Your task to perform on an android device: check google app version Image 0: 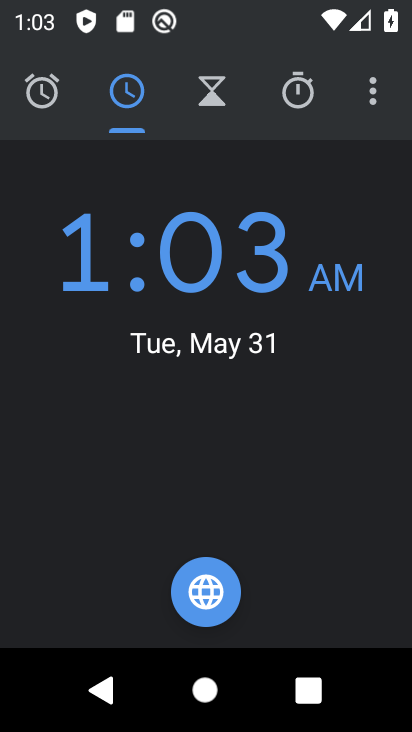
Step 0: press home button
Your task to perform on an android device: check google app version Image 1: 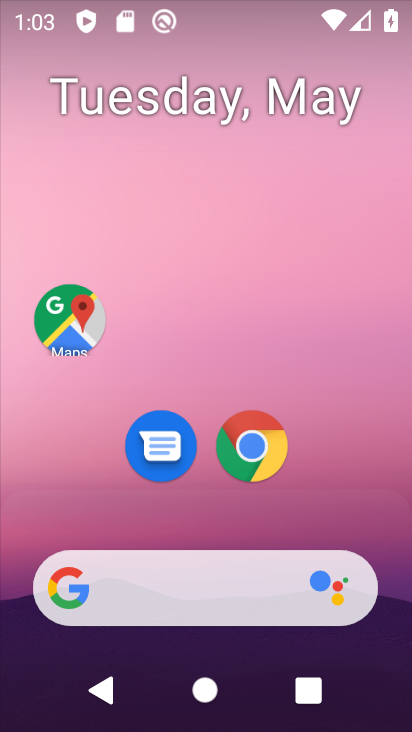
Step 1: drag from (214, 567) to (199, 5)
Your task to perform on an android device: check google app version Image 2: 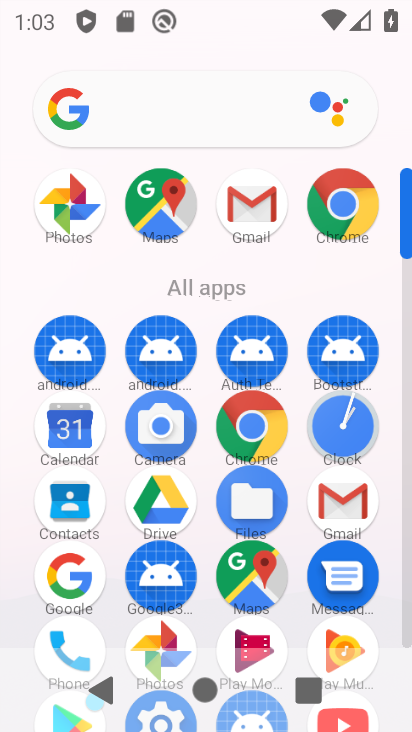
Step 2: drag from (115, 580) to (118, 162)
Your task to perform on an android device: check google app version Image 3: 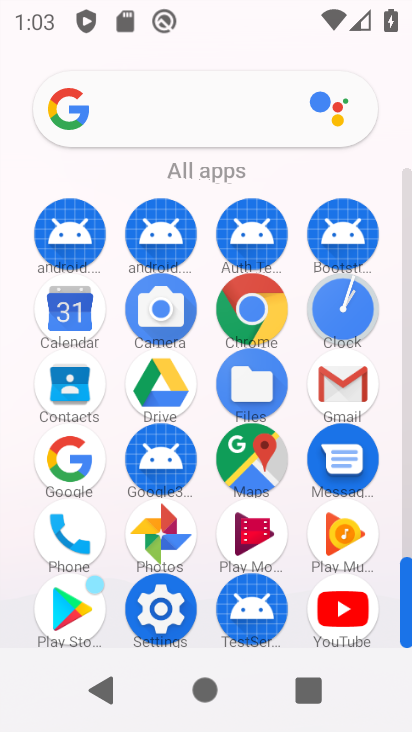
Step 3: click (63, 466)
Your task to perform on an android device: check google app version Image 4: 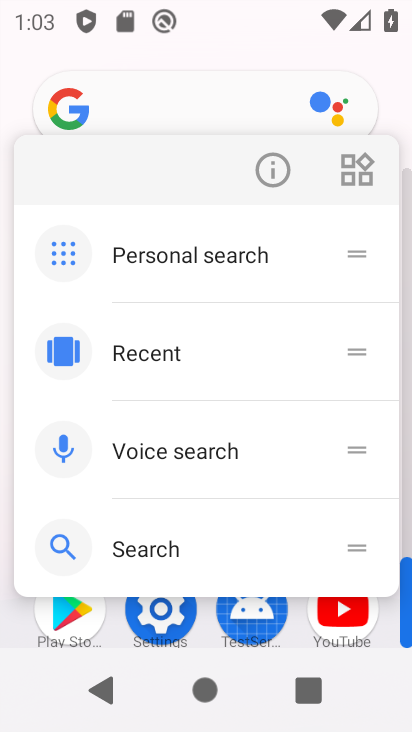
Step 4: click (255, 180)
Your task to perform on an android device: check google app version Image 5: 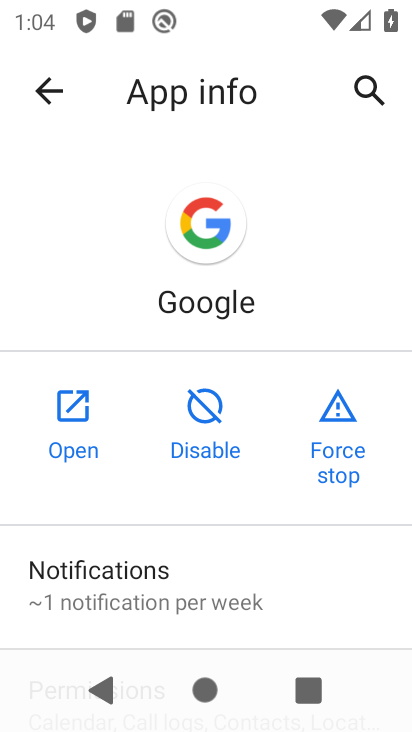
Step 5: drag from (124, 553) to (94, 34)
Your task to perform on an android device: check google app version Image 6: 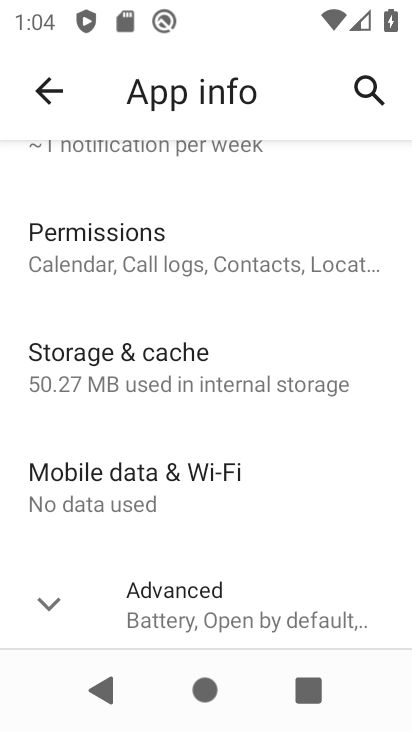
Step 6: click (124, 634)
Your task to perform on an android device: check google app version Image 7: 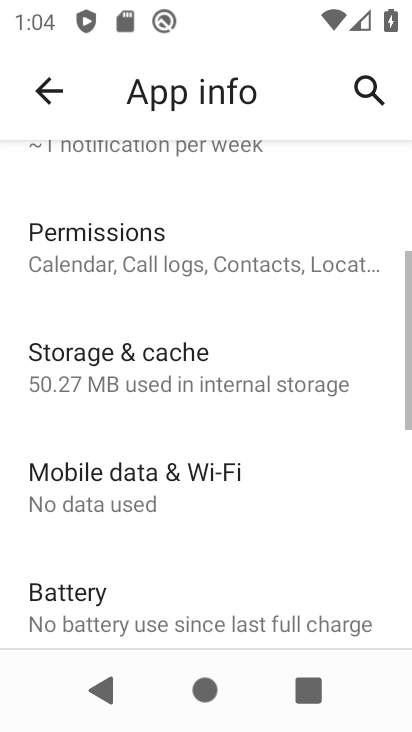
Step 7: task complete